Your task to perform on an android device: Open settings on Google Maps Image 0: 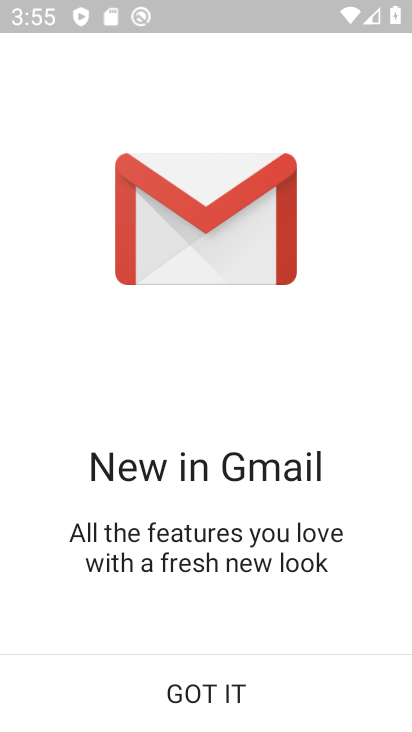
Step 0: press home button
Your task to perform on an android device: Open settings on Google Maps Image 1: 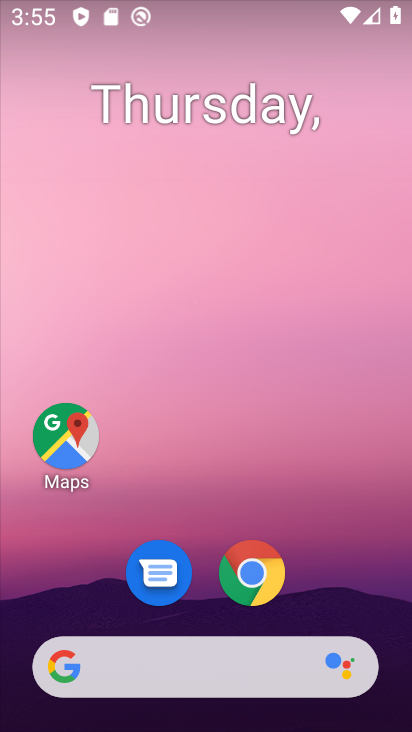
Step 1: click (63, 436)
Your task to perform on an android device: Open settings on Google Maps Image 2: 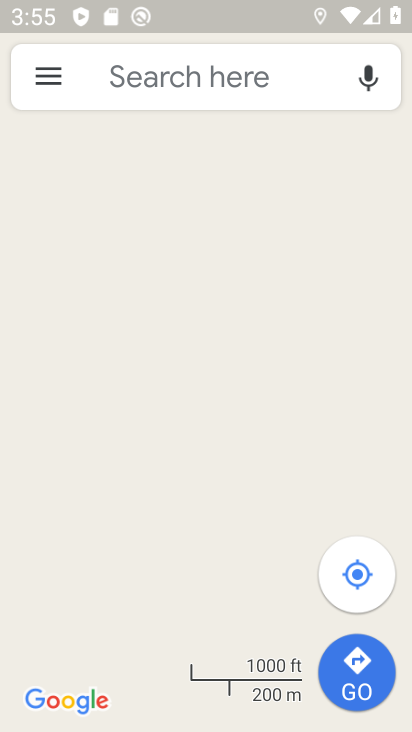
Step 2: click (55, 74)
Your task to perform on an android device: Open settings on Google Maps Image 3: 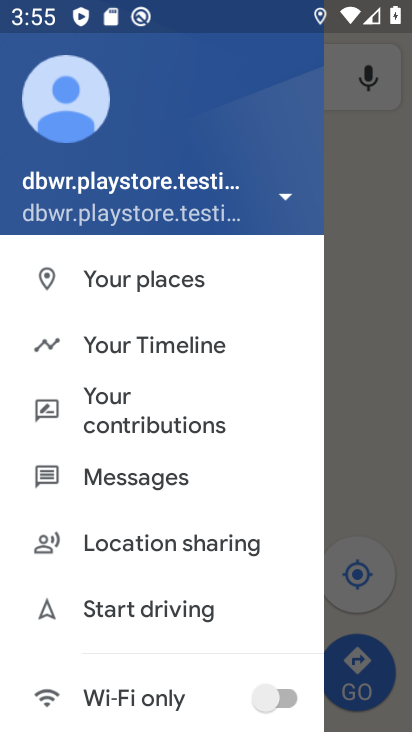
Step 3: drag from (225, 629) to (246, 97)
Your task to perform on an android device: Open settings on Google Maps Image 4: 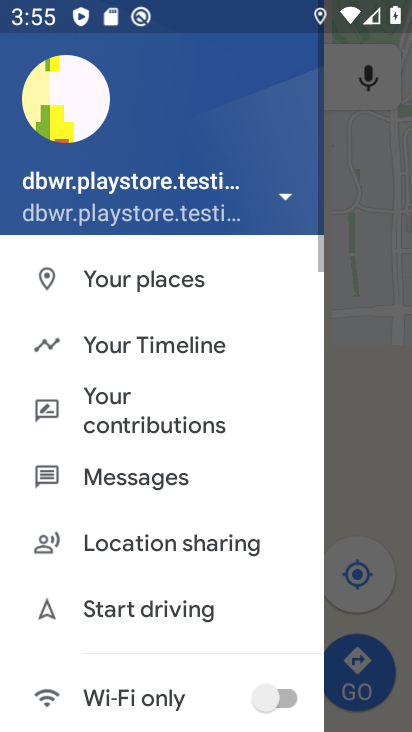
Step 4: drag from (189, 675) to (275, 119)
Your task to perform on an android device: Open settings on Google Maps Image 5: 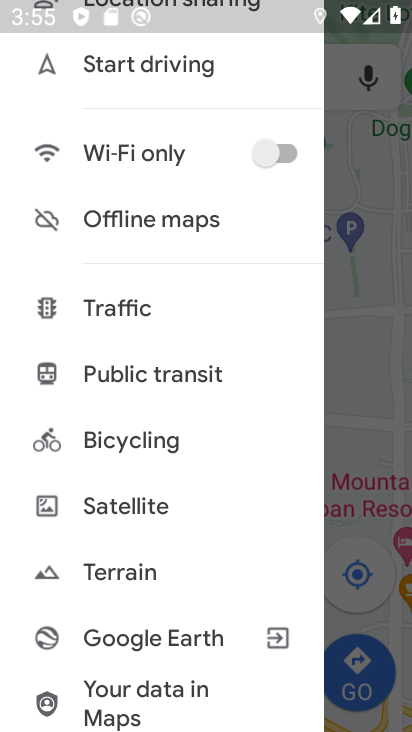
Step 5: drag from (216, 683) to (239, 67)
Your task to perform on an android device: Open settings on Google Maps Image 6: 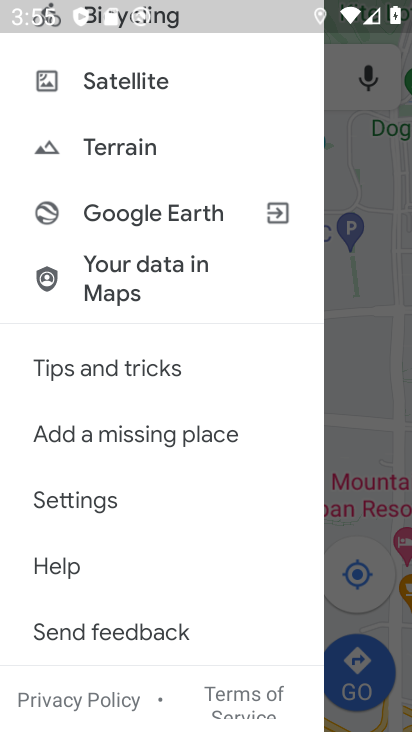
Step 6: click (59, 506)
Your task to perform on an android device: Open settings on Google Maps Image 7: 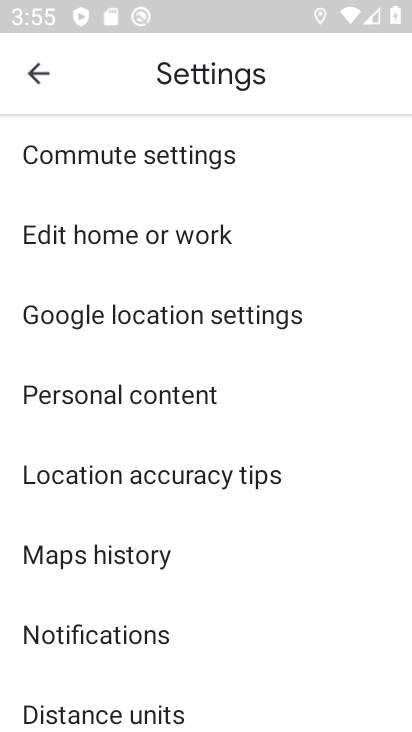
Step 7: task complete